Your task to perform on an android device: allow notifications from all sites in the chrome app Image 0: 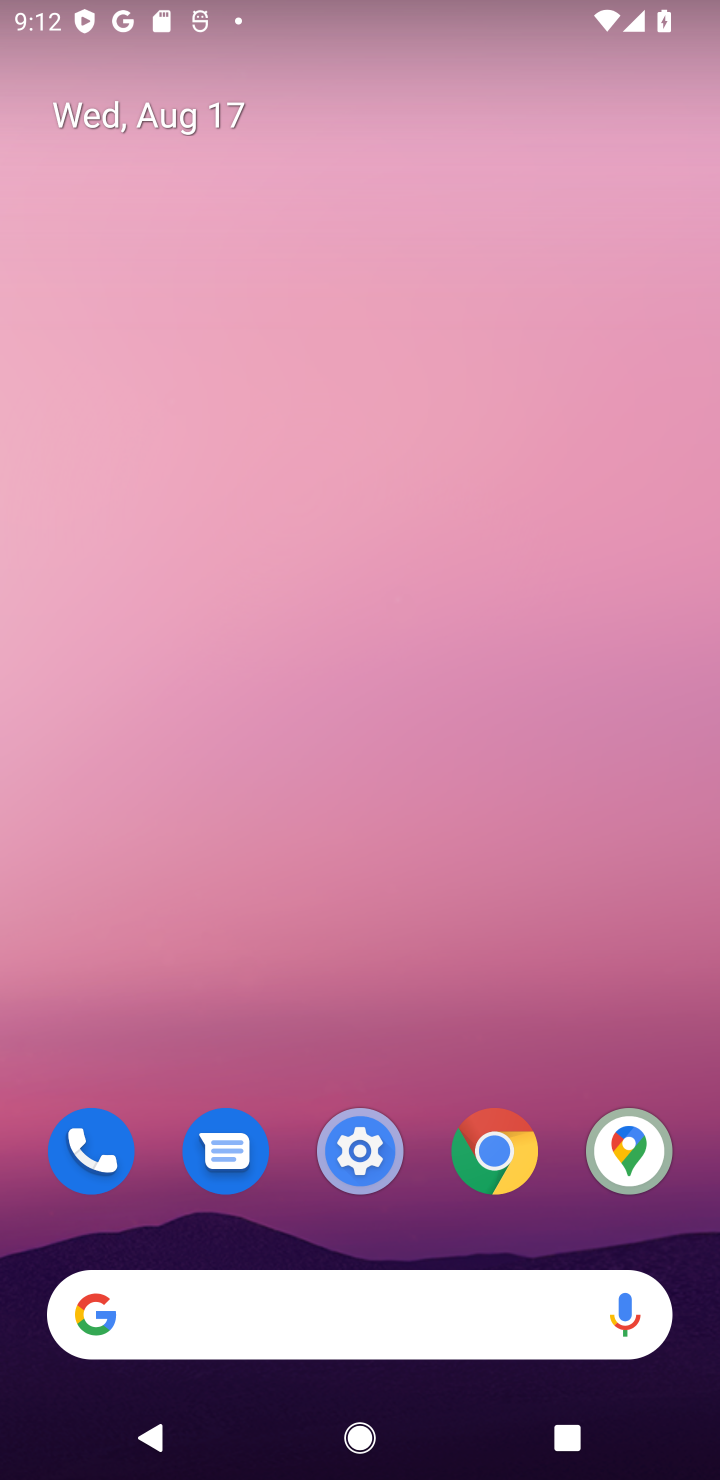
Step 0: click (487, 1158)
Your task to perform on an android device: allow notifications from all sites in the chrome app Image 1: 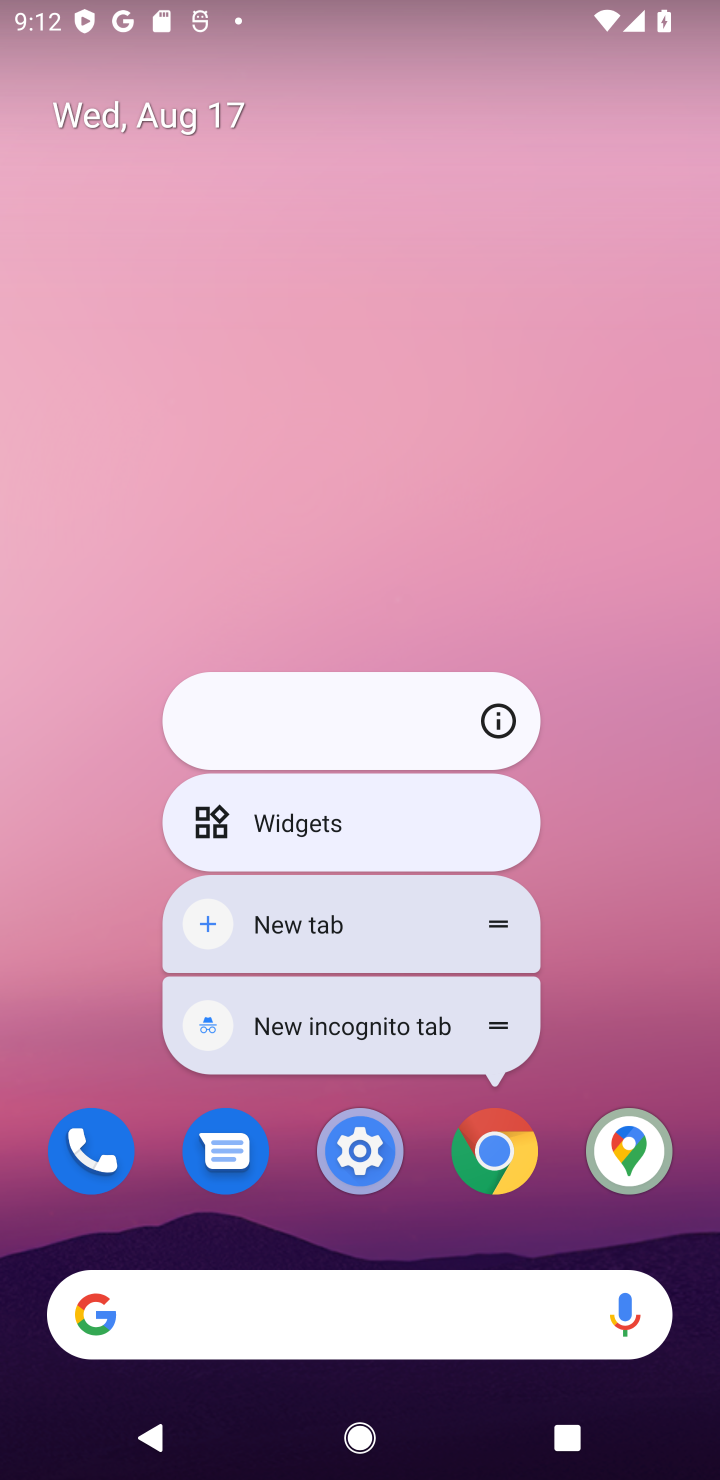
Step 1: click (487, 1158)
Your task to perform on an android device: allow notifications from all sites in the chrome app Image 2: 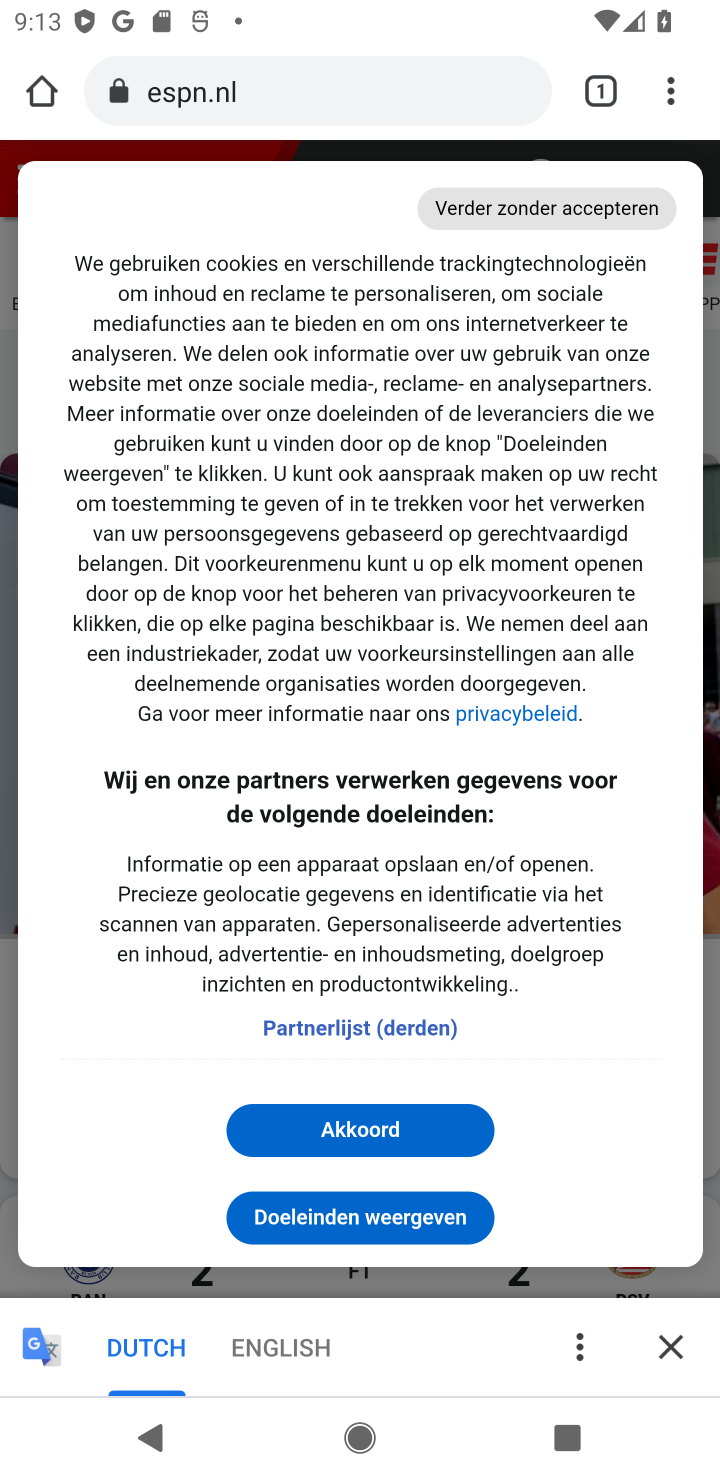
Step 2: click (668, 79)
Your task to perform on an android device: allow notifications from all sites in the chrome app Image 3: 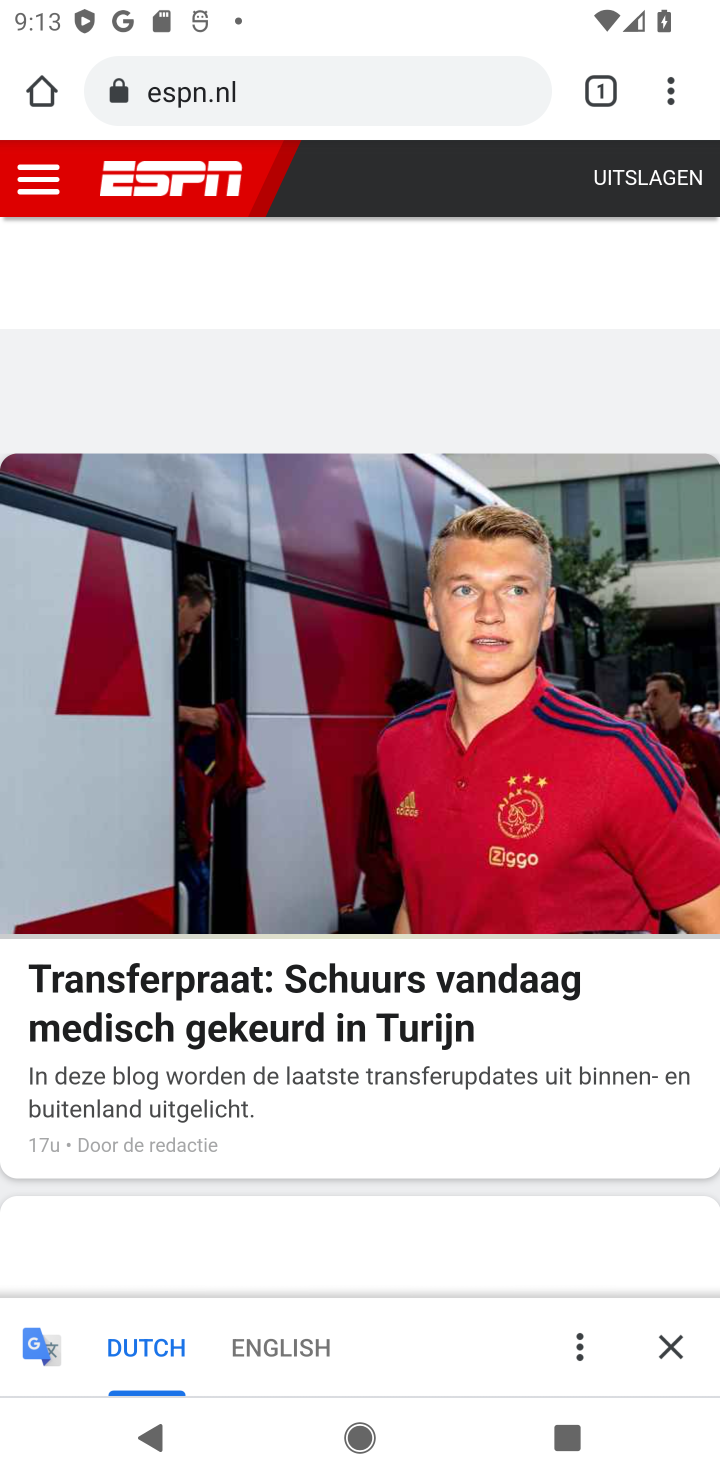
Step 3: click (668, 101)
Your task to perform on an android device: allow notifications from all sites in the chrome app Image 4: 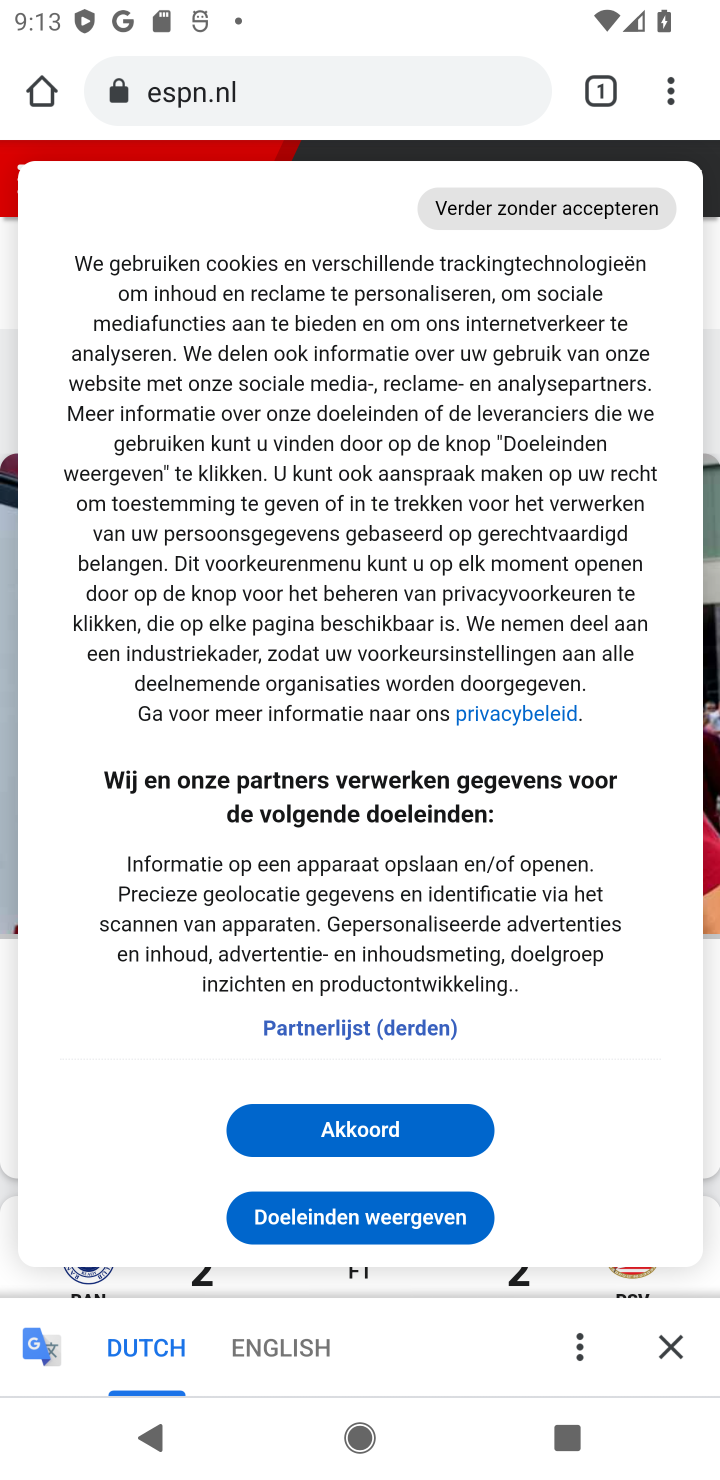
Step 4: click (663, 86)
Your task to perform on an android device: allow notifications from all sites in the chrome app Image 5: 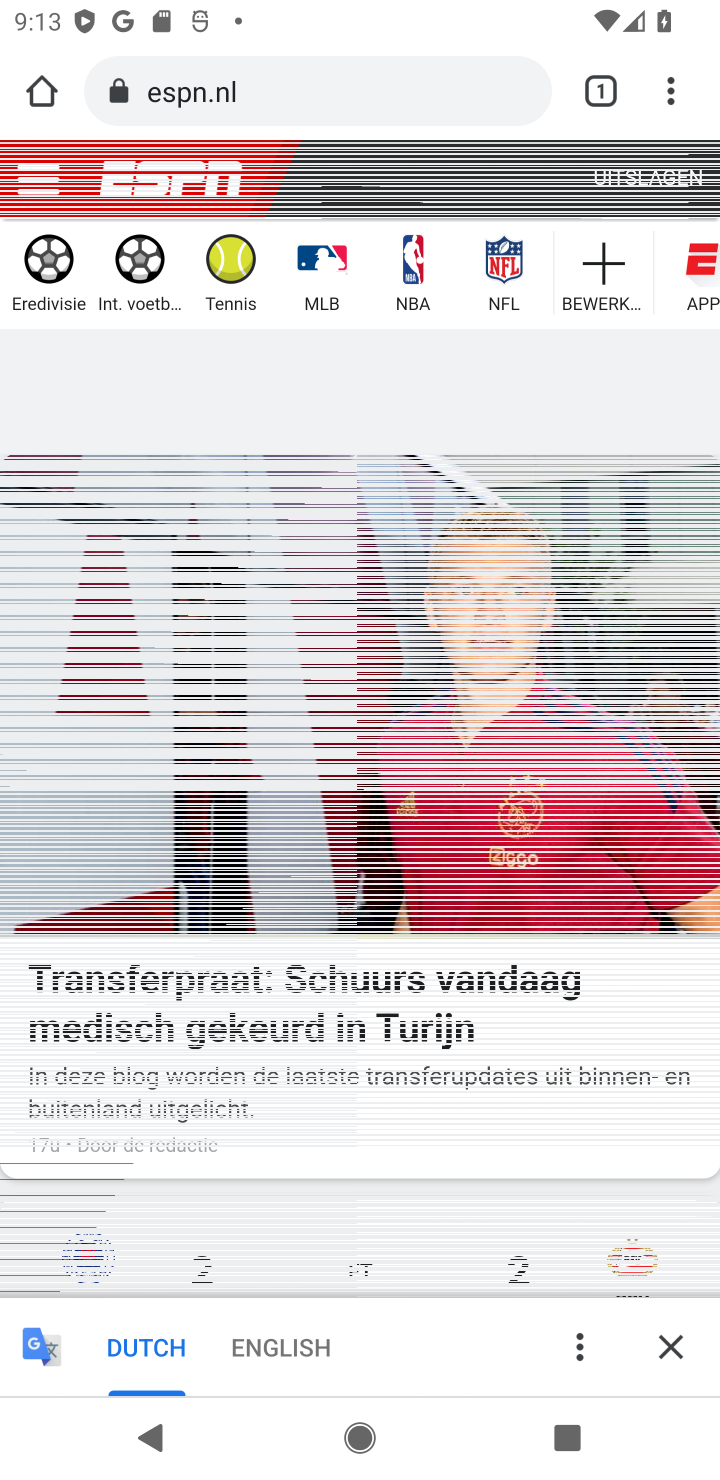
Step 5: click (670, 97)
Your task to perform on an android device: allow notifications from all sites in the chrome app Image 6: 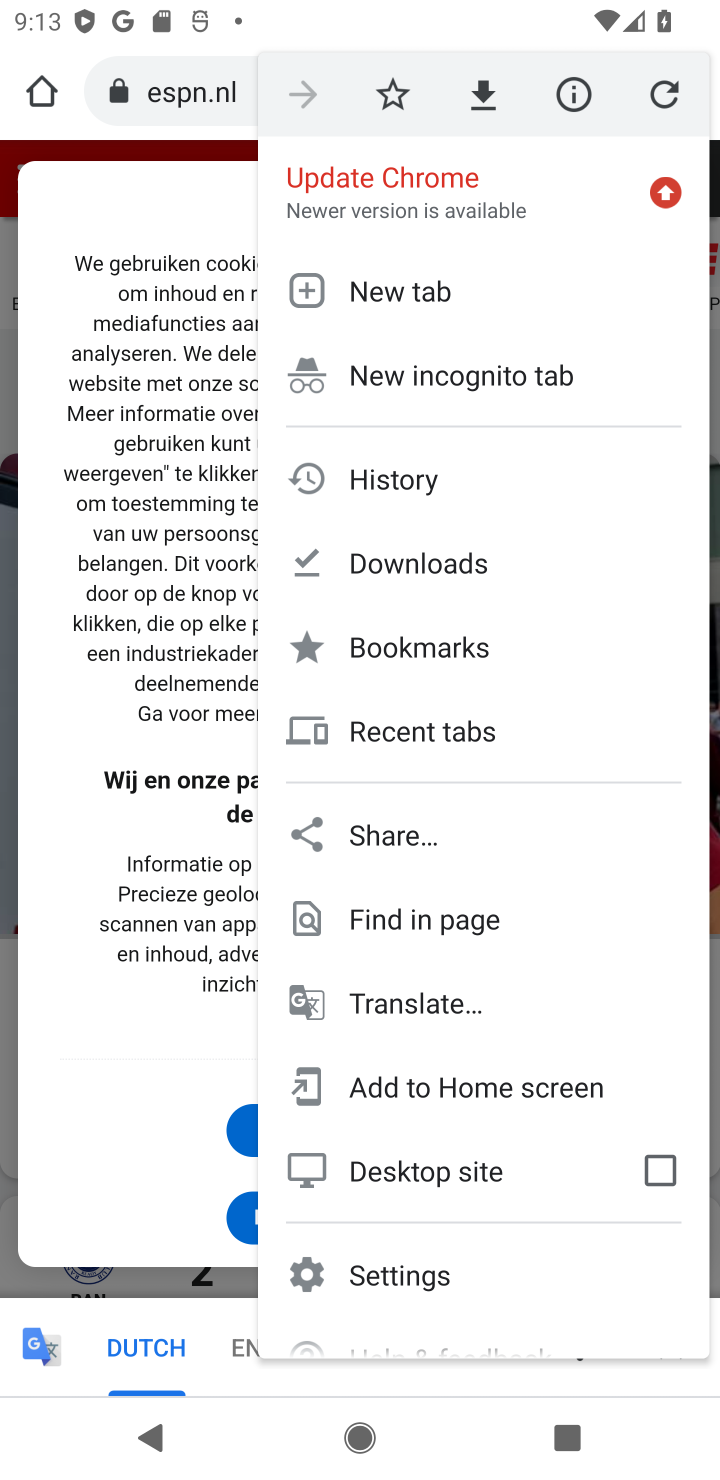
Step 6: click (390, 1272)
Your task to perform on an android device: allow notifications from all sites in the chrome app Image 7: 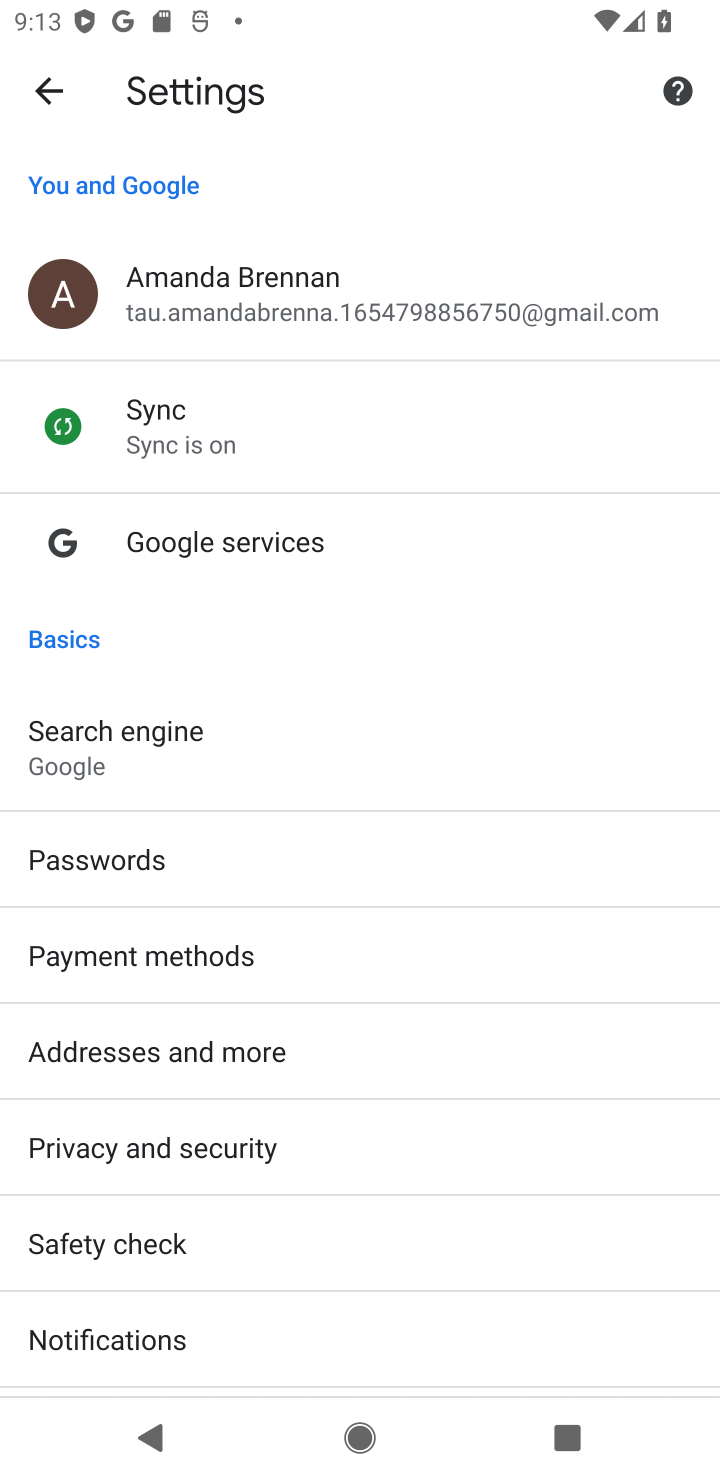
Step 7: drag from (262, 1240) to (247, 564)
Your task to perform on an android device: allow notifications from all sites in the chrome app Image 8: 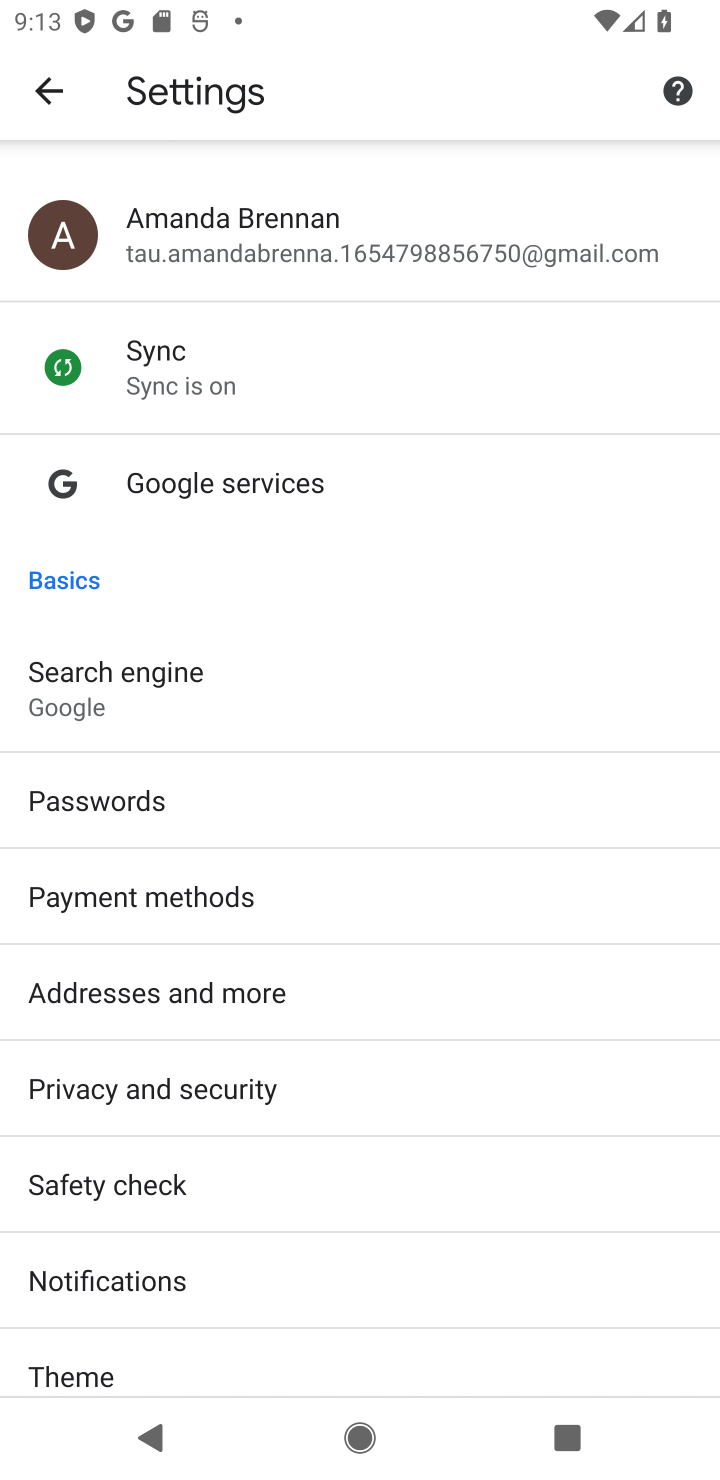
Step 8: drag from (231, 917) to (231, 716)
Your task to perform on an android device: allow notifications from all sites in the chrome app Image 9: 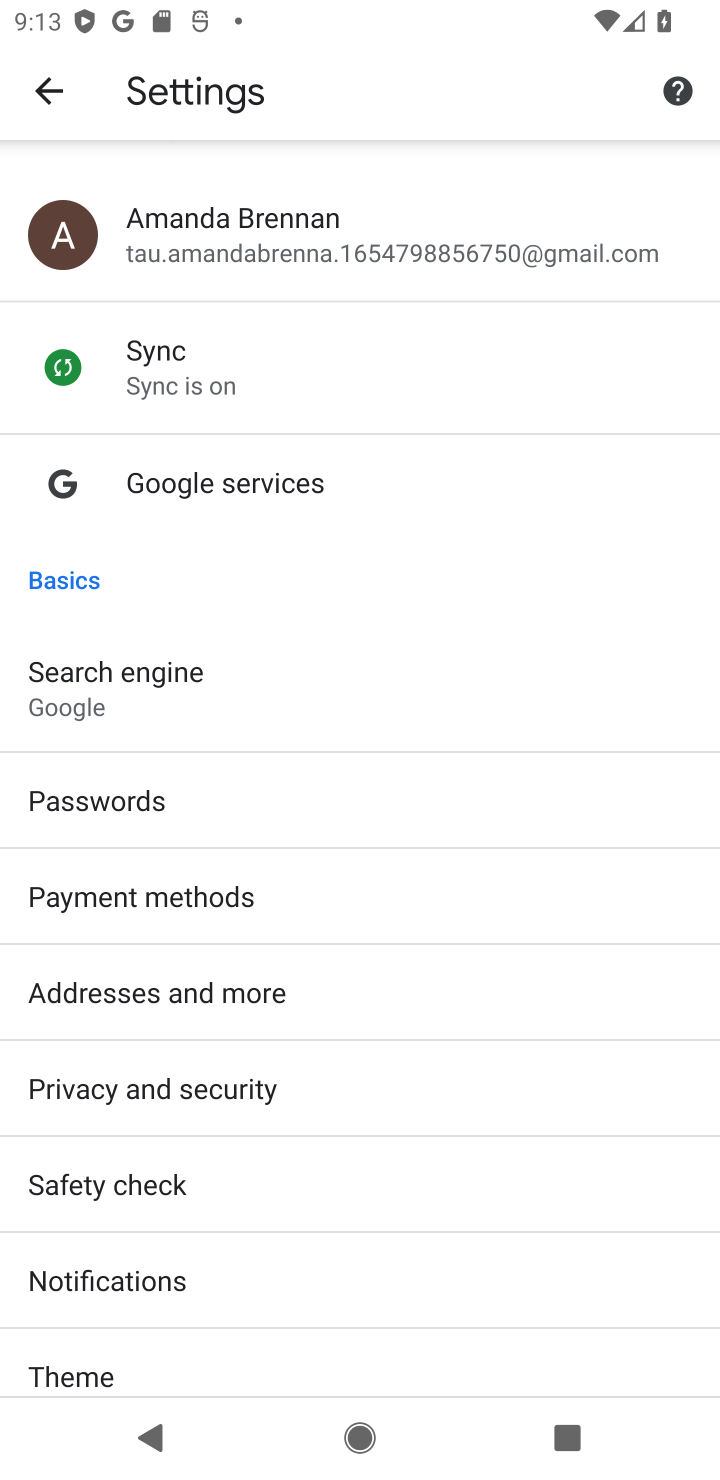
Step 9: drag from (169, 1305) to (233, 550)
Your task to perform on an android device: allow notifications from all sites in the chrome app Image 10: 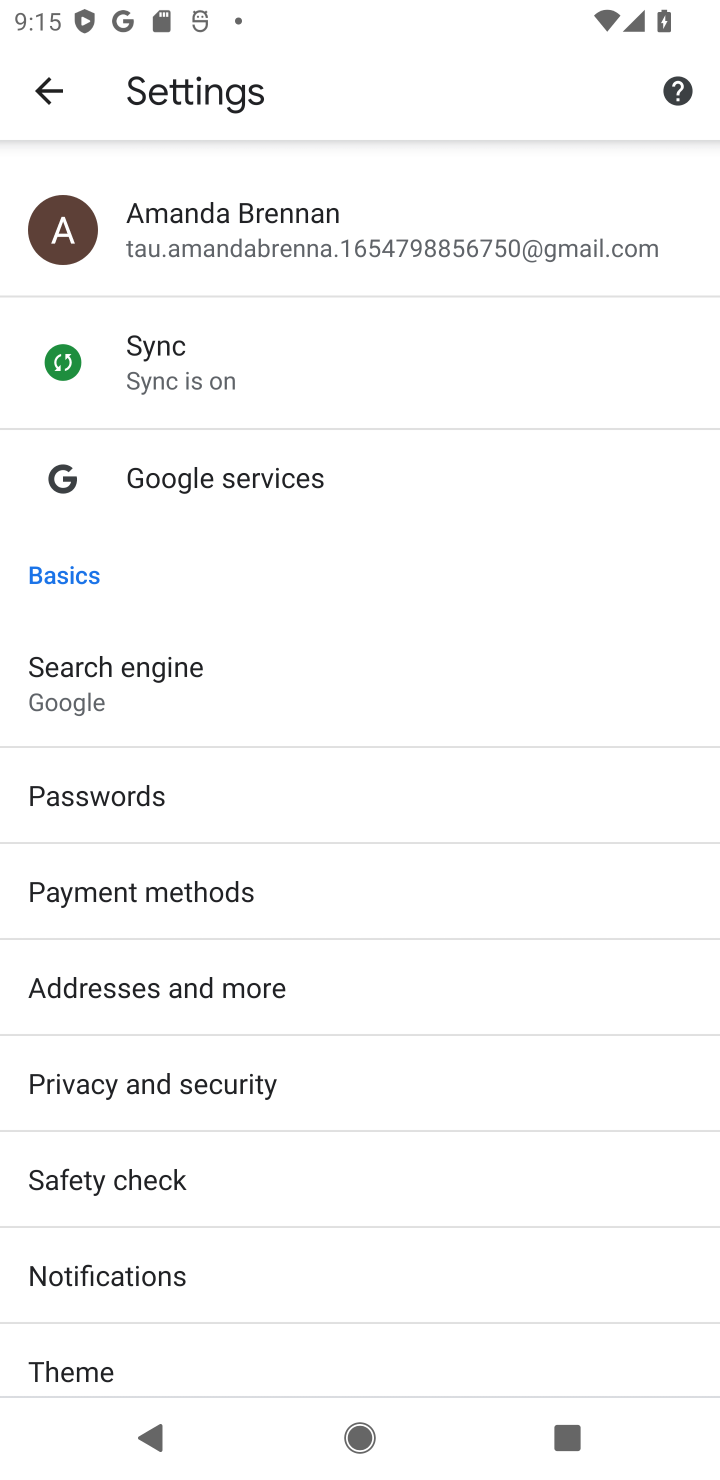
Step 10: drag from (266, 1131) to (379, 221)
Your task to perform on an android device: allow notifications from all sites in the chrome app Image 11: 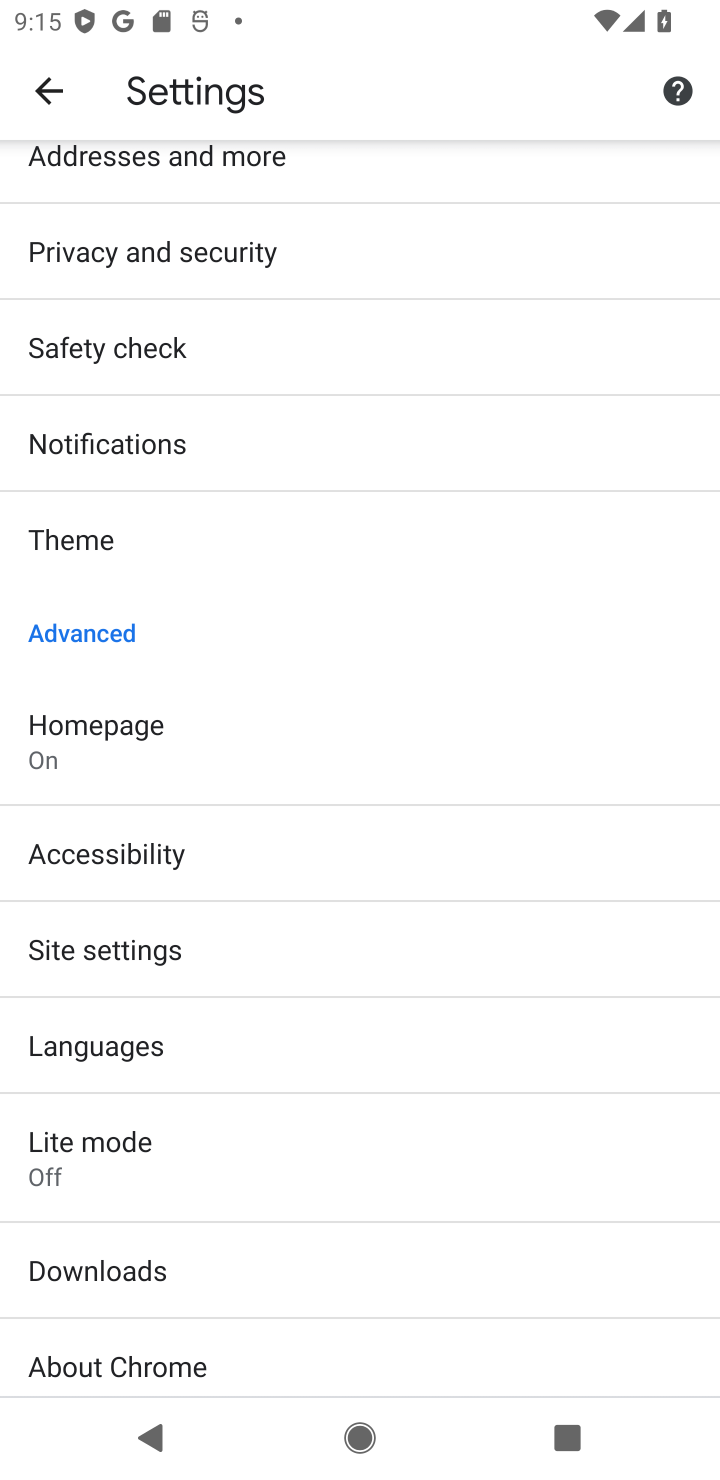
Step 11: click (134, 946)
Your task to perform on an android device: allow notifications from all sites in the chrome app Image 12: 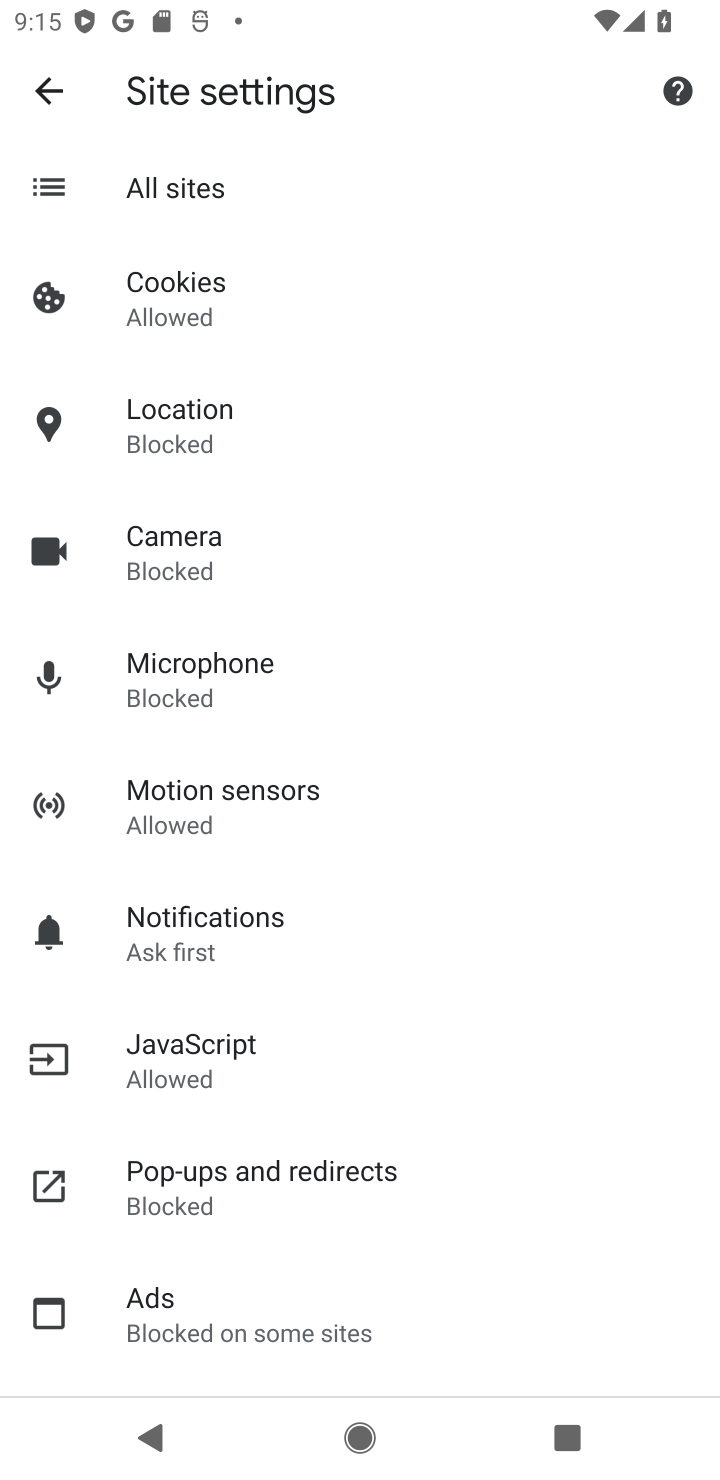
Step 12: click (224, 961)
Your task to perform on an android device: allow notifications from all sites in the chrome app Image 13: 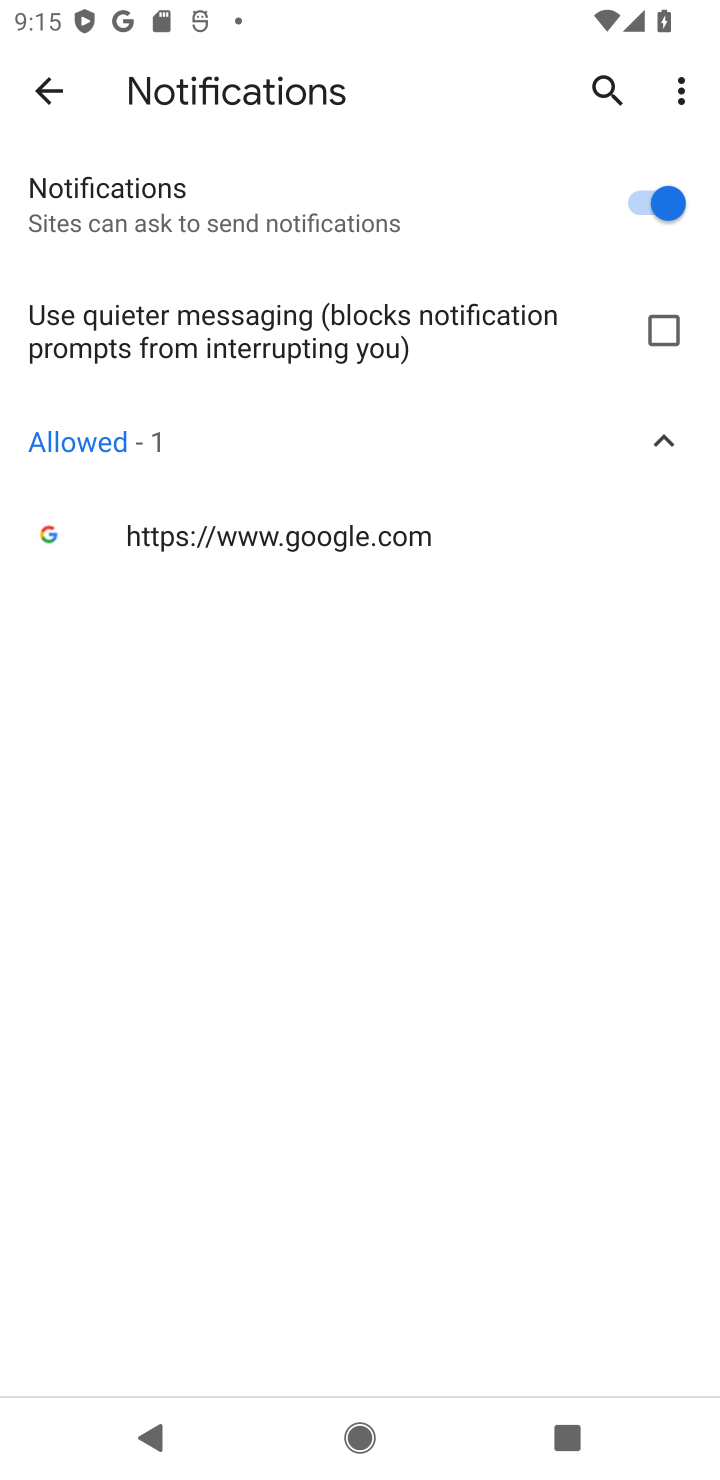
Step 13: task complete